Your task to perform on an android device: turn notification dots off Image 0: 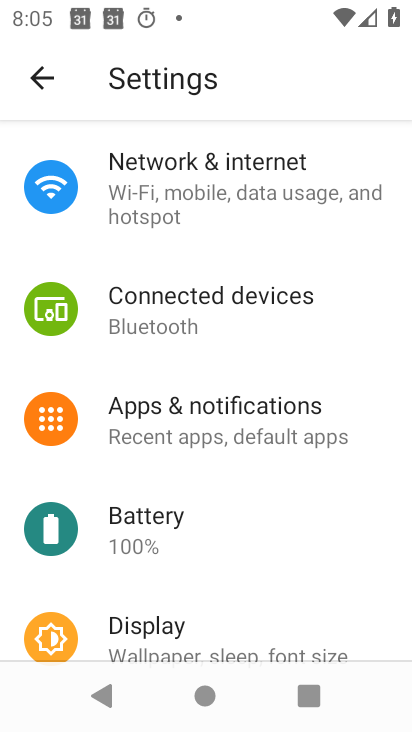
Step 0: click (199, 414)
Your task to perform on an android device: turn notification dots off Image 1: 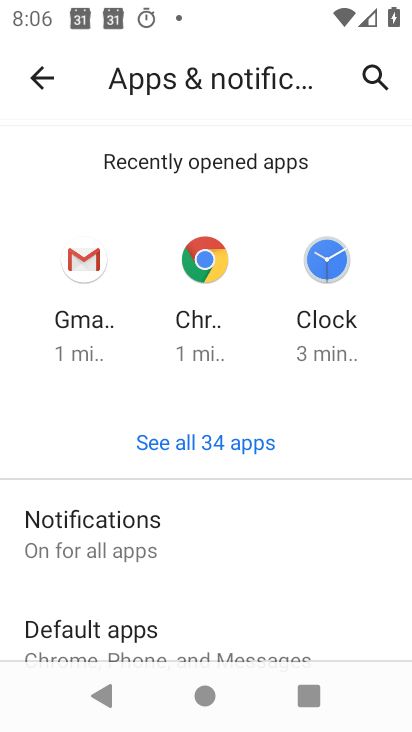
Step 1: click (99, 538)
Your task to perform on an android device: turn notification dots off Image 2: 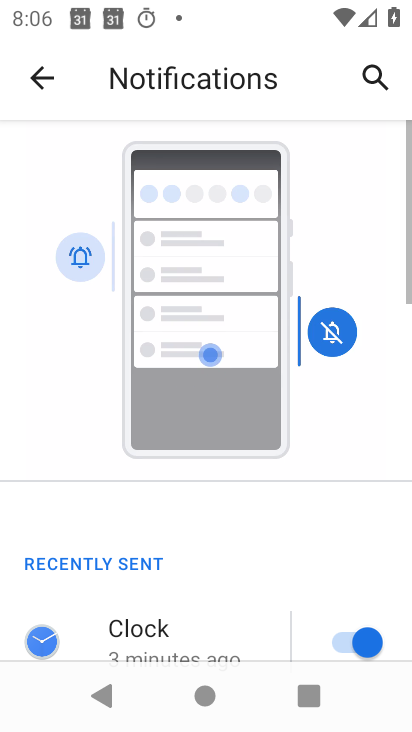
Step 2: drag from (246, 634) to (260, 357)
Your task to perform on an android device: turn notification dots off Image 3: 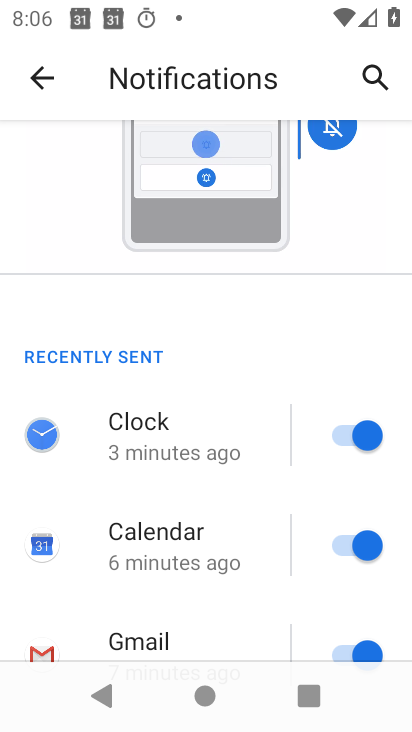
Step 3: drag from (240, 639) to (244, 310)
Your task to perform on an android device: turn notification dots off Image 4: 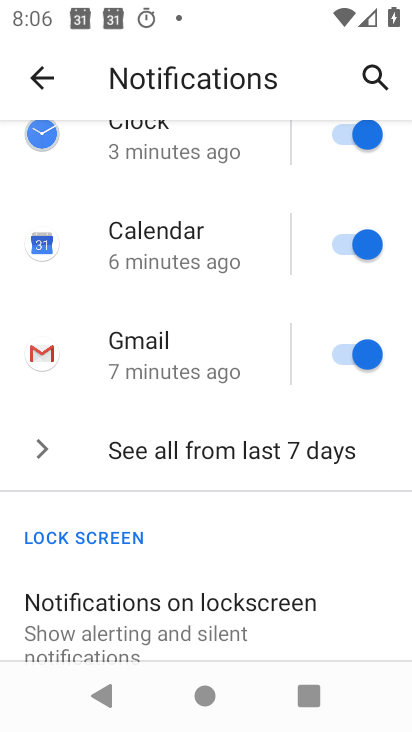
Step 4: drag from (252, 645) to (256, 286)
Your task to perform on an android device: turn notification dots off Image 5: 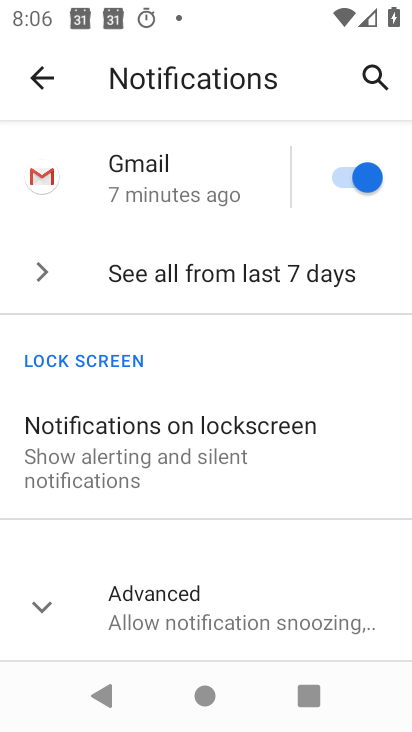
Step 5: click (184, 610)
Your task to perform on an android device: turn notification dots off Image 6: 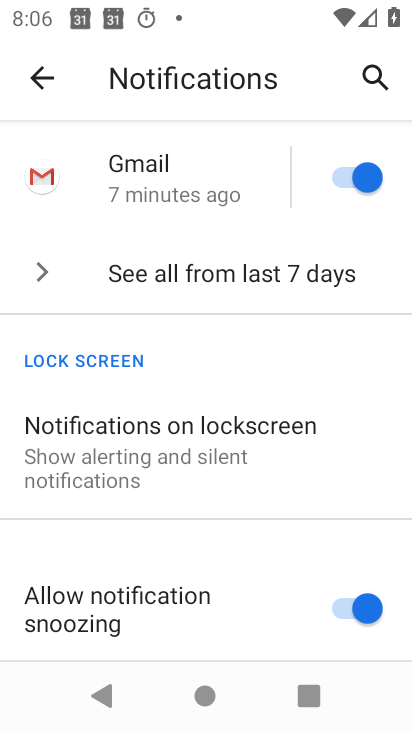
Step 6: drag from (233, 620) to (238, 333)
Your task to perform on an android device: turn notification dots off Image 7: 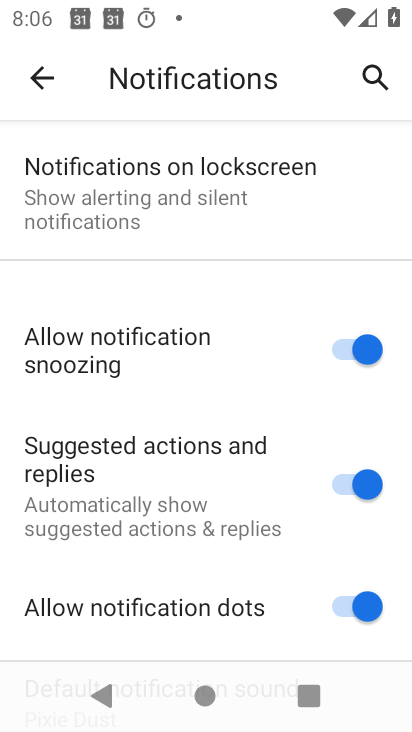
Step 7: click (341, 613)
Your task to perform on an android device: turn notification dots off Image 8: 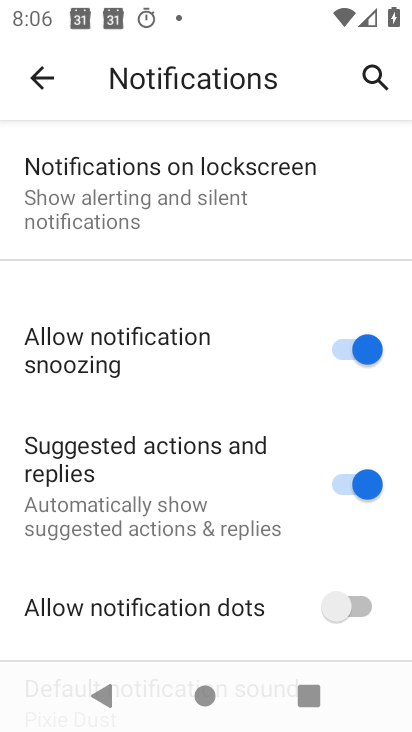
Step 8: task complete